Your task to perform on an android device: turn on airplane mode Image 0: 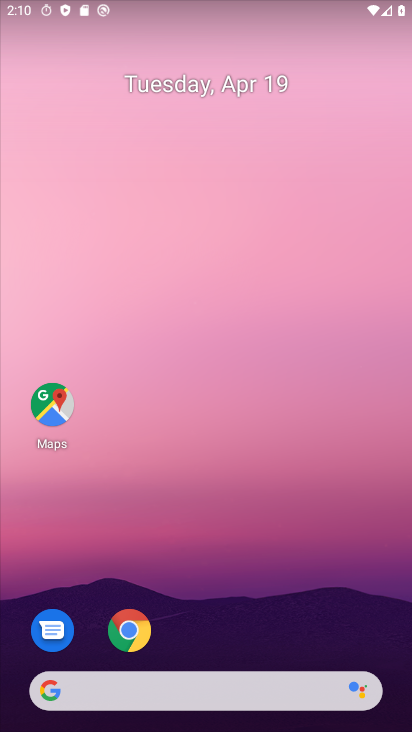
Step 0: drag from (276, 560) to (247, 153)
Your task to perform on an android device: turn on airplane mode Image 1: 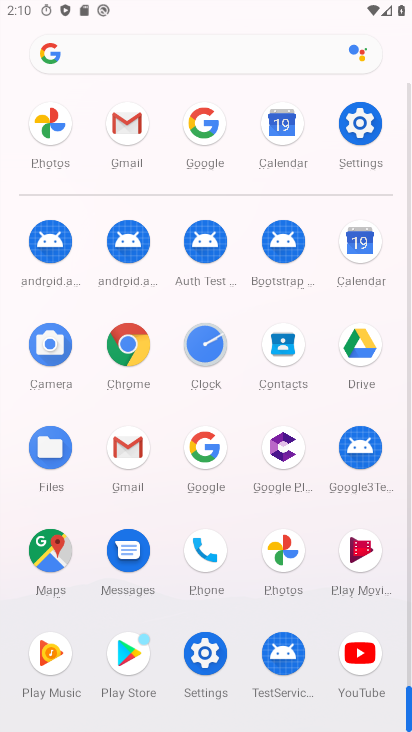
Step 1: click (355, 125)
Your task to perform on an android device: turn on airplane mode Image 2: 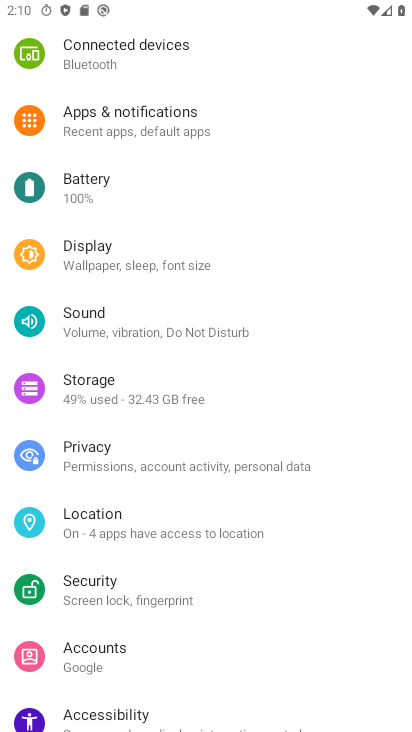
Step 2: drag from (241, 107) to (200, 519)
Your task to perform on an android device: turn on airplane mode Image 3: 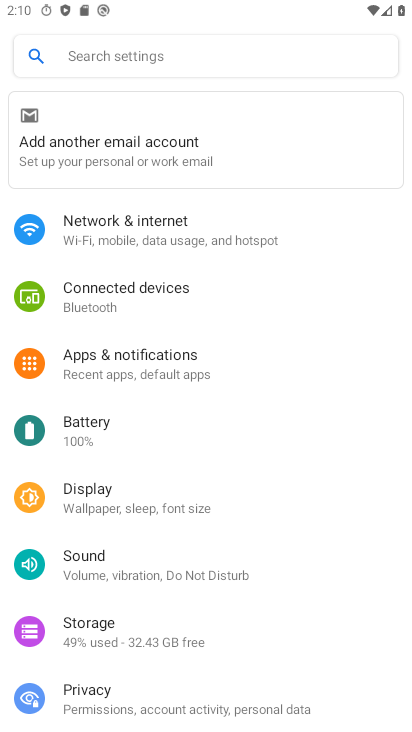
Step 3: click (167, 229)
Your task to perform on an android device: turn on airplane mode Image 4: 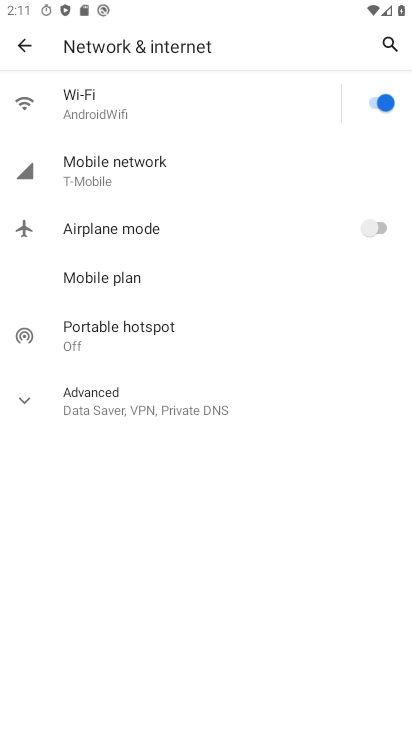
Step 4: click (386, 228)
Your task to perform on an android device: turn on airplane mode Image 5: 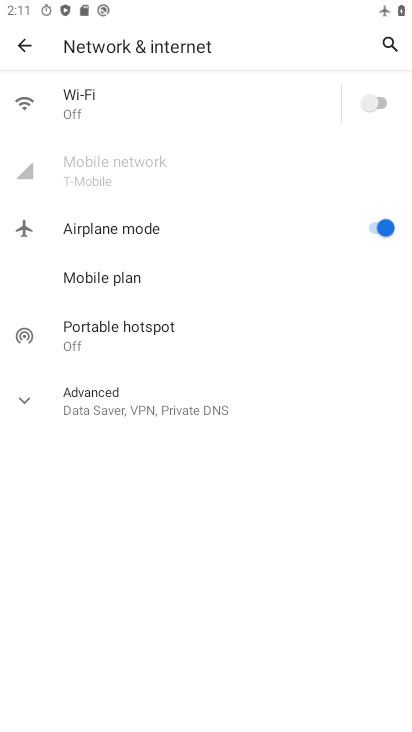
Step 5: task complete